Your task to perform on an android device: turn on airplane mode Image 0: 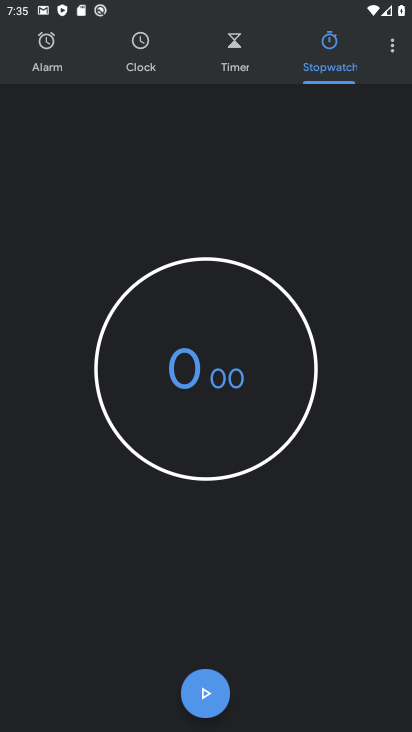
Step 0: press home button
Your task to perform on an android device: turn on airplane mode Image 1: 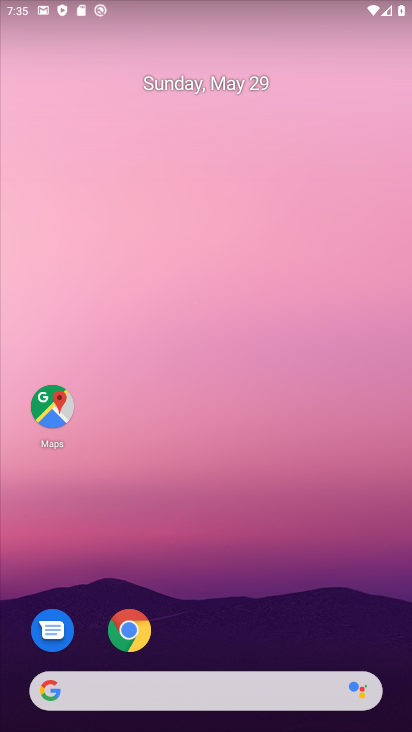
Step 1: drag from (242, 647) to (269, 0)
Your task to perform on an android device: turn on airplane mode Image 2: 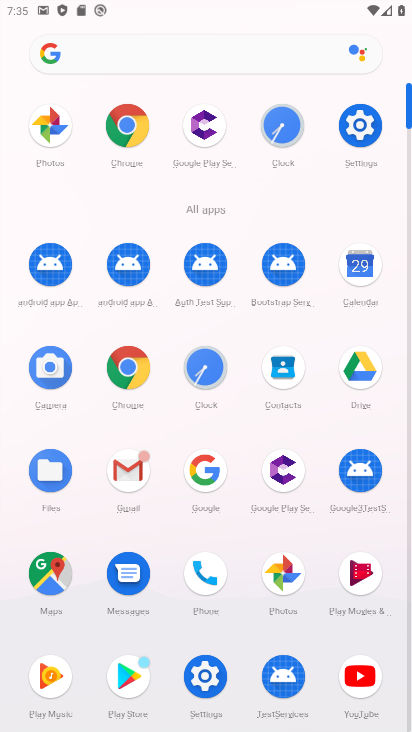
Step 2: click (356, 132)
Your task to perform on an android device: turn on airplane mode Image 3: 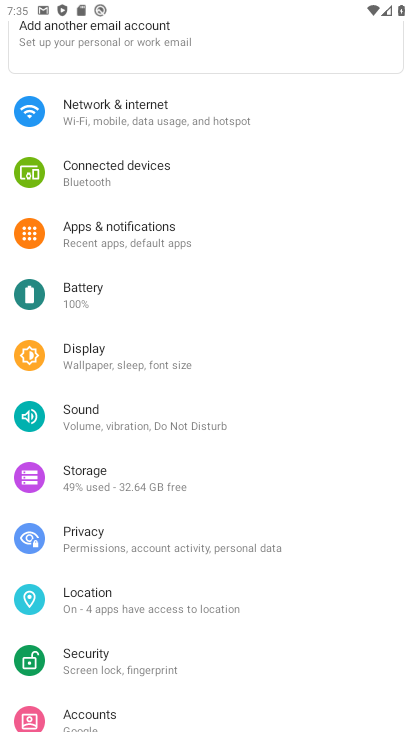
Step 3: click (185, 106)
Your task to perform on an android device: turn on airplane mode Image 4: 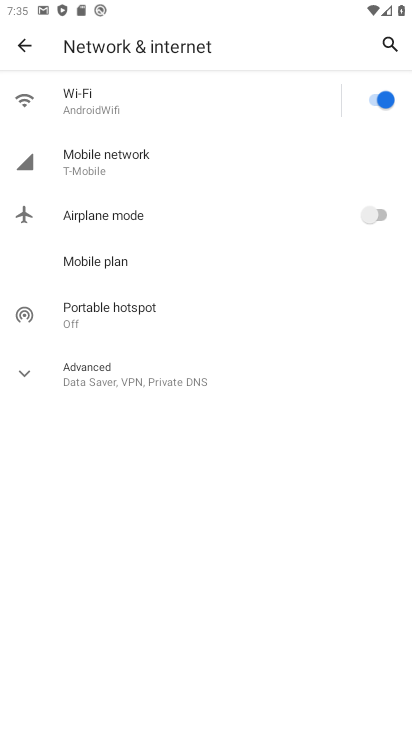
Step 4: click (378, 213)
Your task to perform on an android device: turn on airplane mode Image 5: 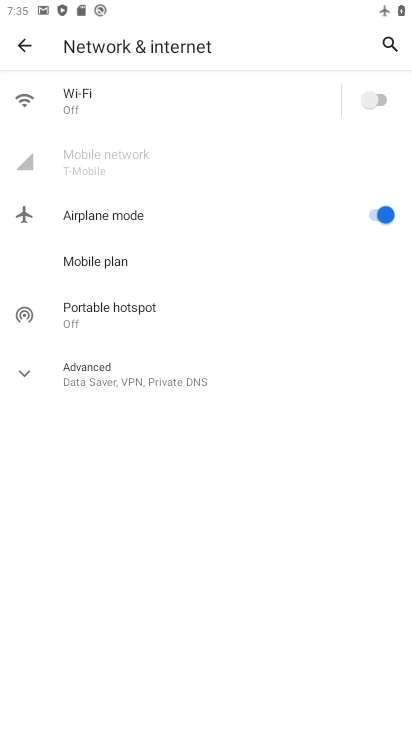
Step 5: task complete